Your task to perform on an android device: Search for vegetarian restaurants on Maps Image 0: 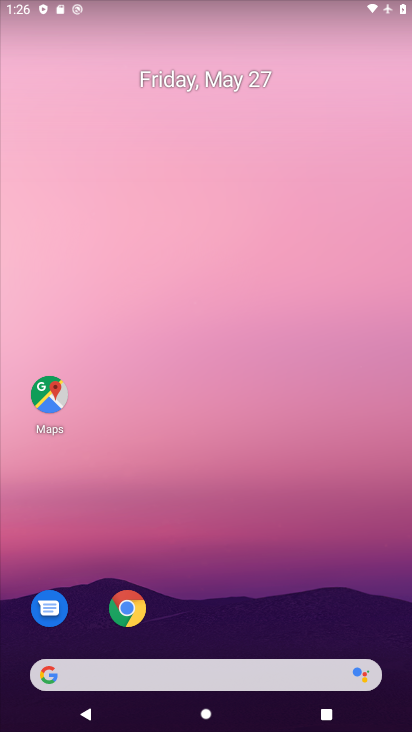
Step 0: press home button
Your task to perform on an android device: Search for vegetarian restaurants on Maps Image 1: 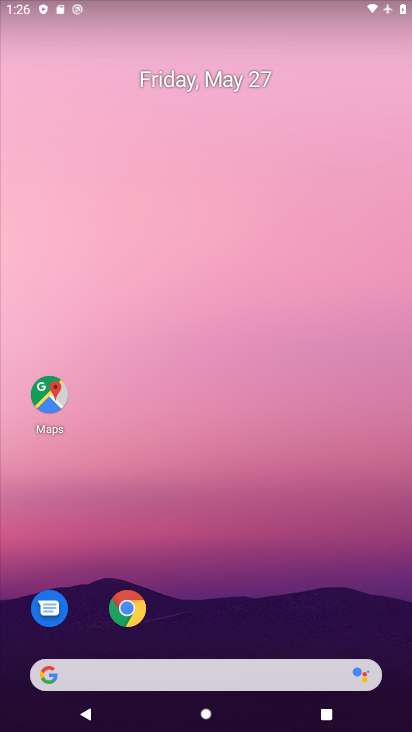
Step 1: click (55, 398)
Your task to perform on an android device: Search for vegetarian restaurants on Maps Image 2: 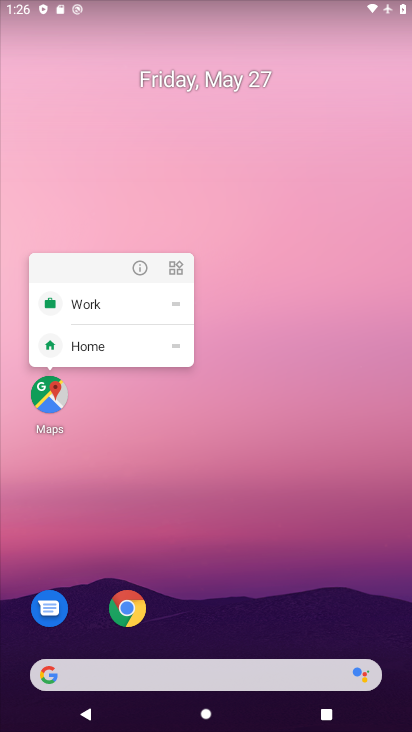
Step 2: click (45, 397)
Your task to perform on an android device: Search for vegetarian restaurants on Maps Image 3: 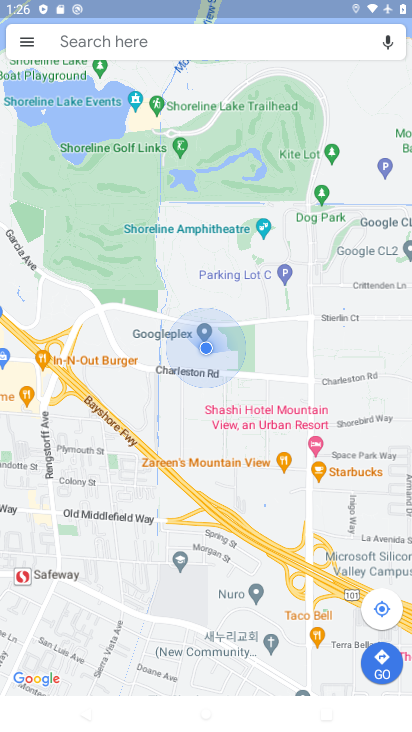
Step 3: click (220, 24)
Your task to perform on an android device: Search for vegetarian restaurants on Maps Image 4: 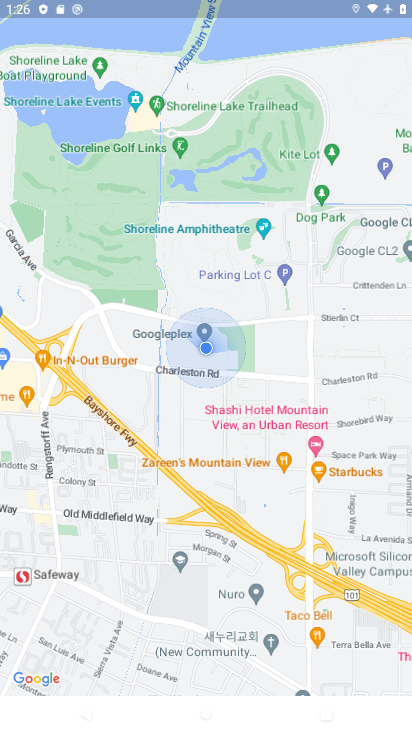
Step 4: drag from (204, 77) to (232, 237)
Your task to perform on an android device: Search for vegetarian restaurants on Maps Image 5: 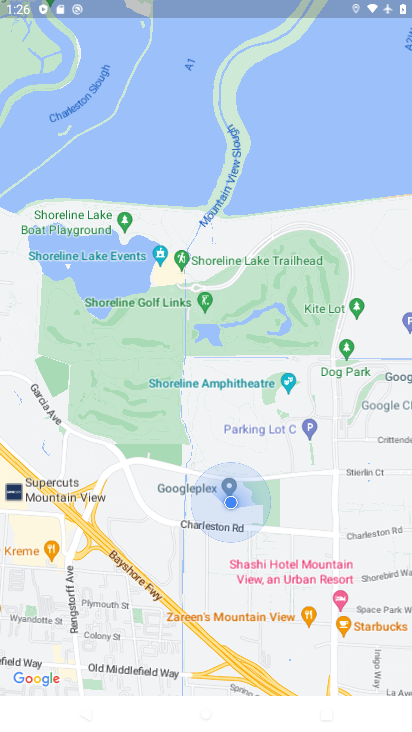
Step 5: press back button
Your task to perform on an android device: Search for vegetarian restaurants on Maps Image 6: 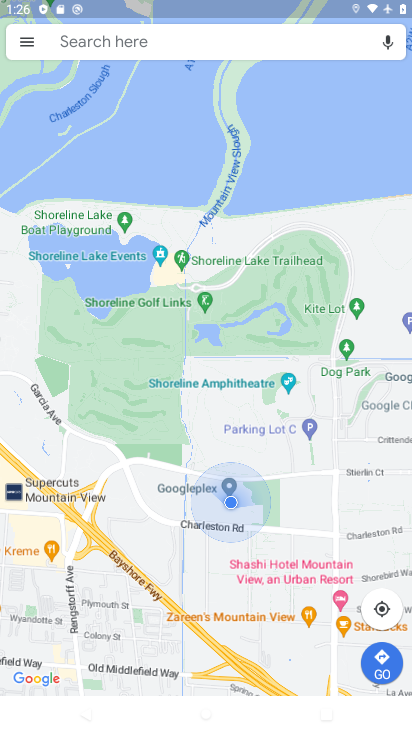
Step 6: click (180, 41)
Your task to perform on an android device: Search for vegetarian restaurants on Maps Image 7: 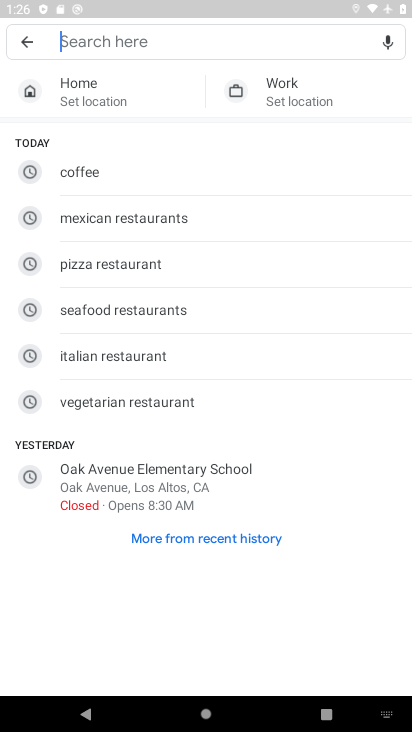
Step 7: click (119, 401)
Your task to perform on an android device: Search for vegetarian restaurants on Maps Image 8: 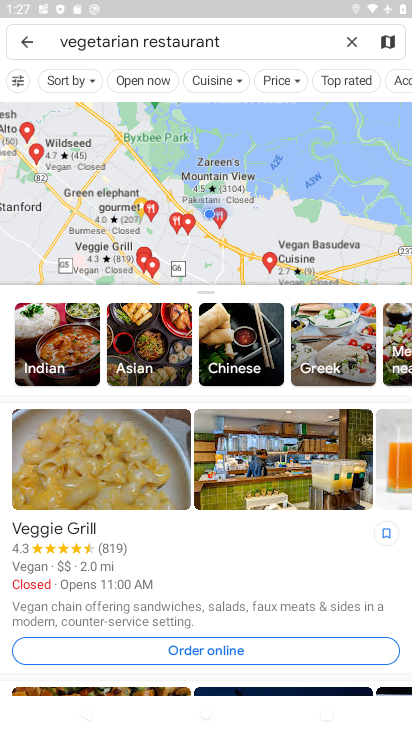
Step 8: task complete